Your task to perform on an android device: What's the weather going to be tomorrow? Image 0: 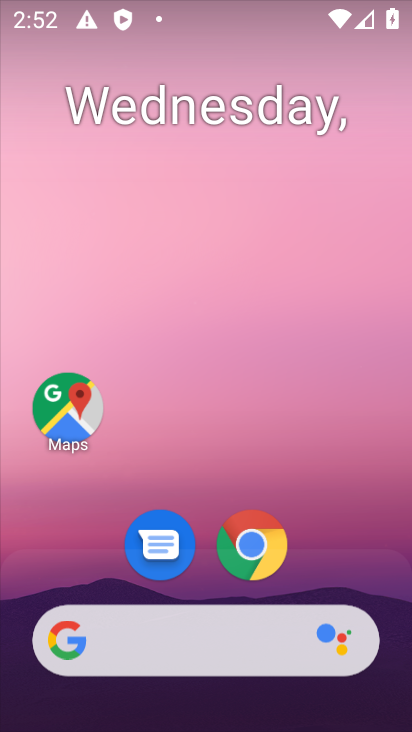
Step 0: drag from (198, 636) to (189, 114)
Your task to perform on an android device: What's the weather going to be tomorrow? Image 1: 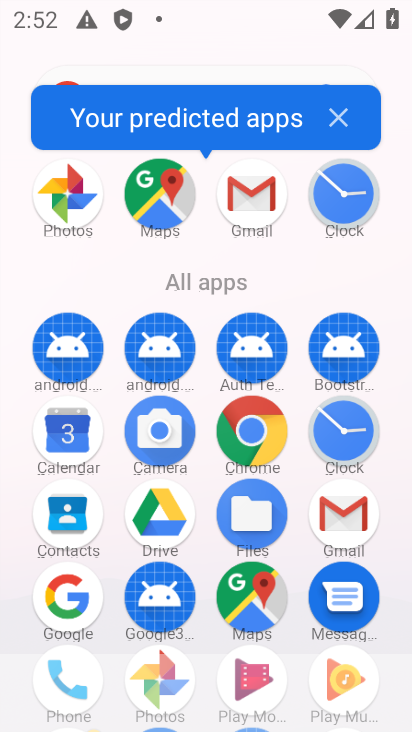
Step 1: click (241, 444)
Your task to perform on an android device: What's the weather going to be tomorrow? Image 2: 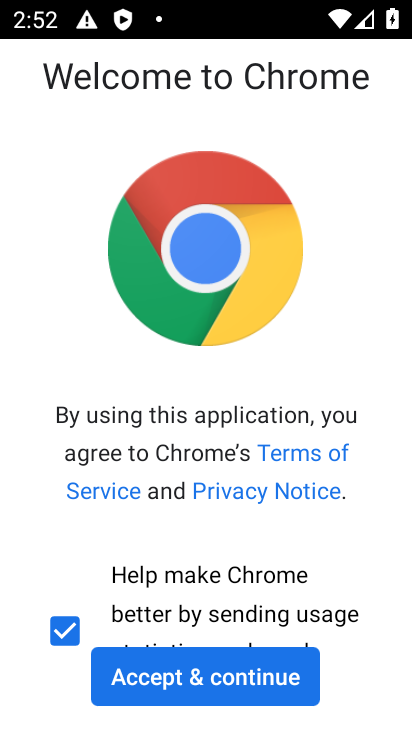
Step 2: click (228, 694)
Your task to perform on an android device: What's the weather going to be tomorrow? Image 3: 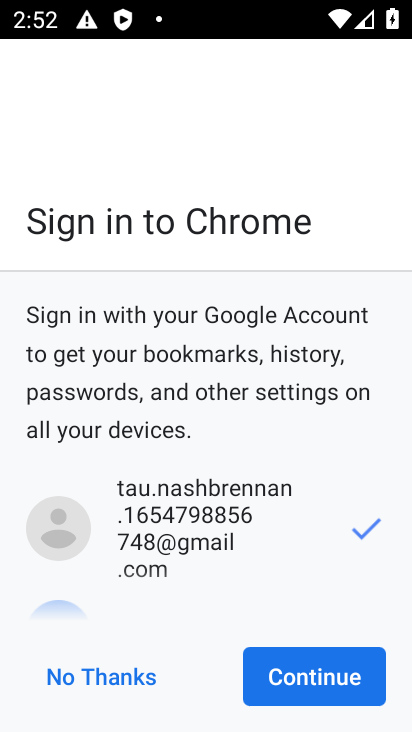
Step 3: click (335, 673)
Your task to perform on an android device: What's the weather going to be tomorrow? Image 4: 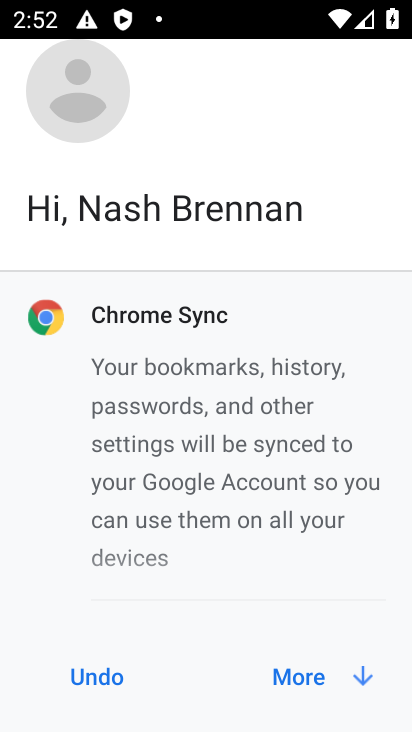
Step 4: click (335, 673)
Your task to perform on an android device: What's the weather going to be tomorrow? Image 5: 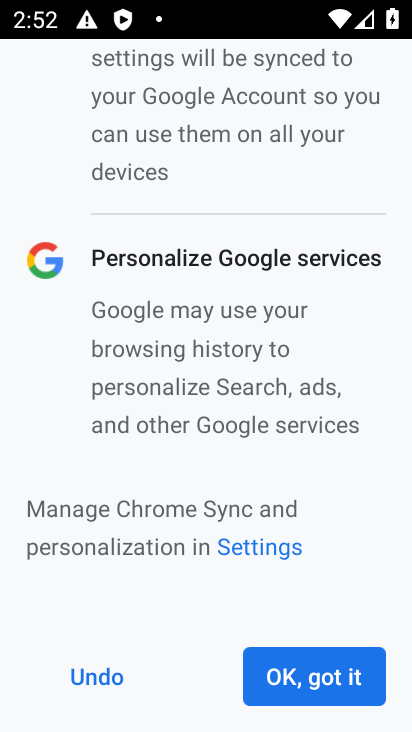
Step 5: click (335, 673)
Your task to perform on an android device: What's the weather going to be tomorrow? Image 6: 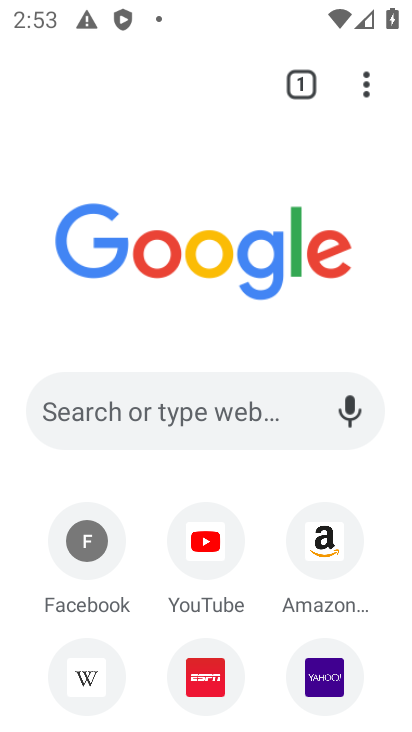
Step 6: click (167, 446)
Your task to perform on an android device: What's the weather going to be tomorrow? Image 7: 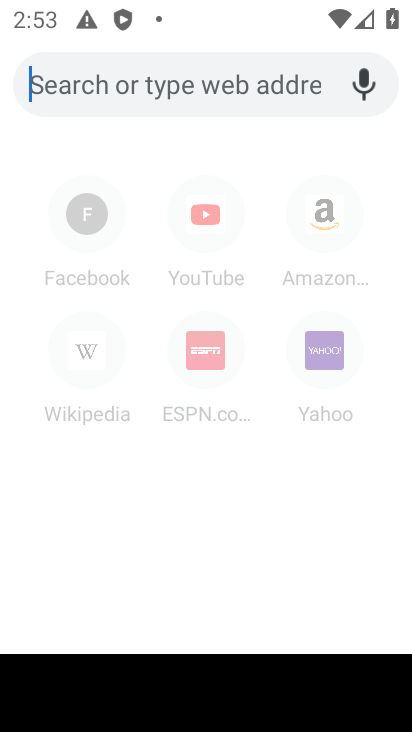
Step 7: type "weather tomorrow"
Your task to perform on an android device: What's the weather going to be tomorrow? Image 8: 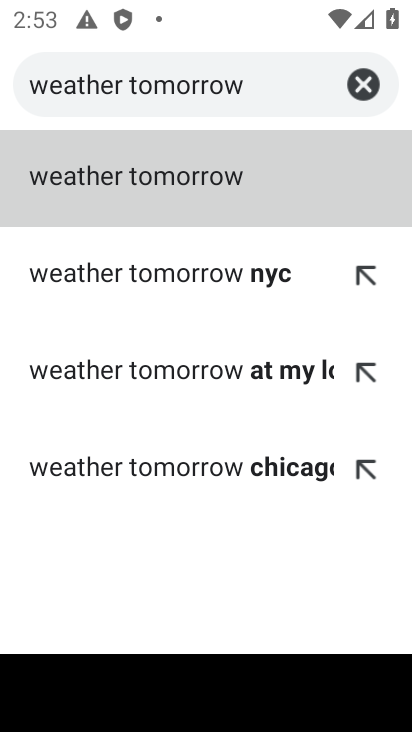
Step 8: click (212, 185)
Your task to perform on an android device: What's the weather going to be tomorrow? Image 9: 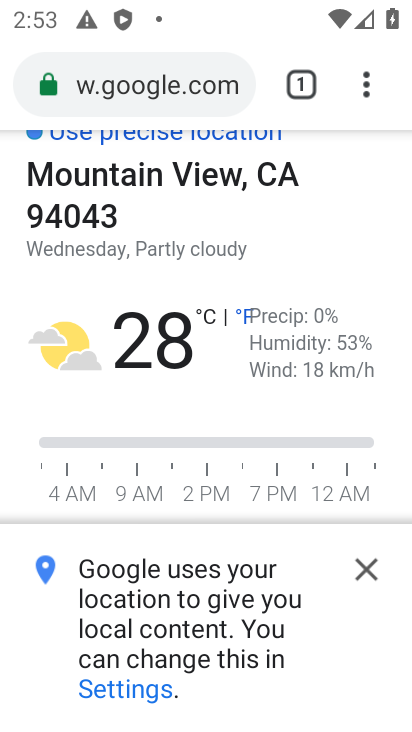
Step 9: task complete